Your task to perform on an android device: read, delete, or share a saved page in the chrome app Image 0: 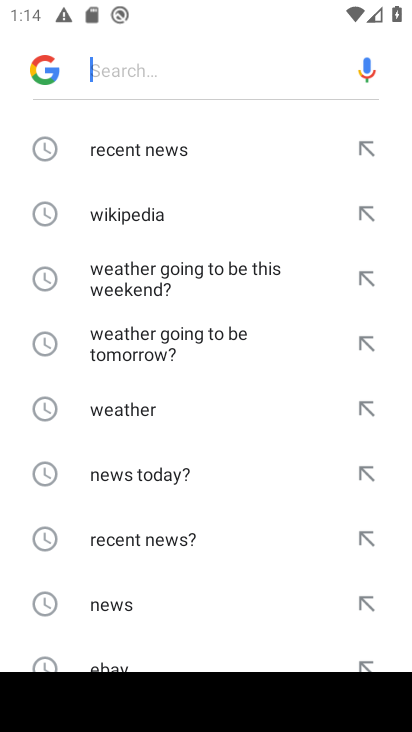
Step 0: press home button
Your task to perform on an android device: read, delete, or share a saved page in the chrome app Image 1: 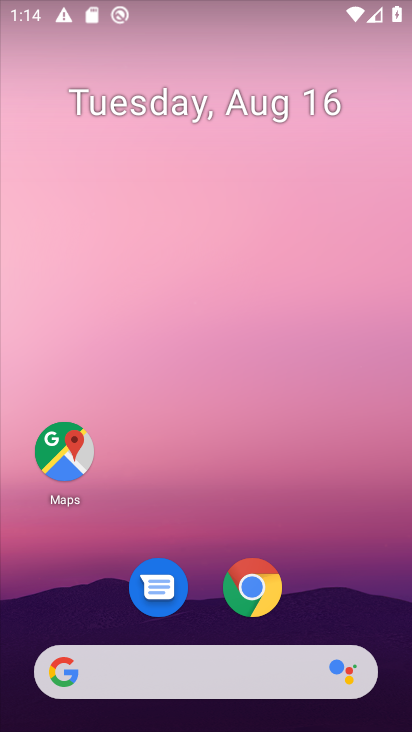
Step 1: click (245, 588)
Your task to perform on an android device: read, delete, or share a saved page in the chrome app Image 2: 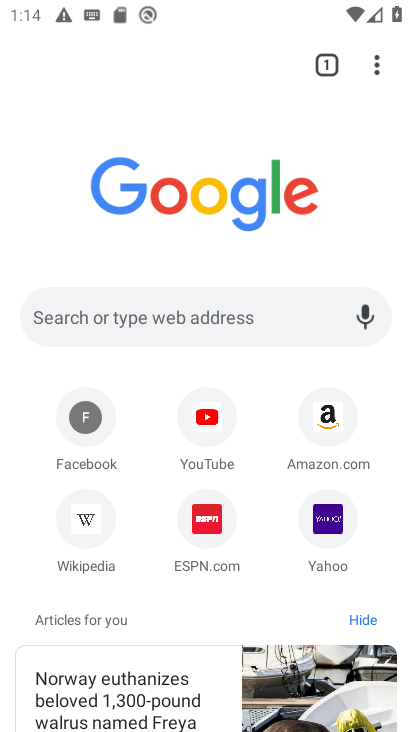
Step 2: click (378, 68)
Your task to perform on an android device: read, delete, or share a saved page in the chrome app Image 3: 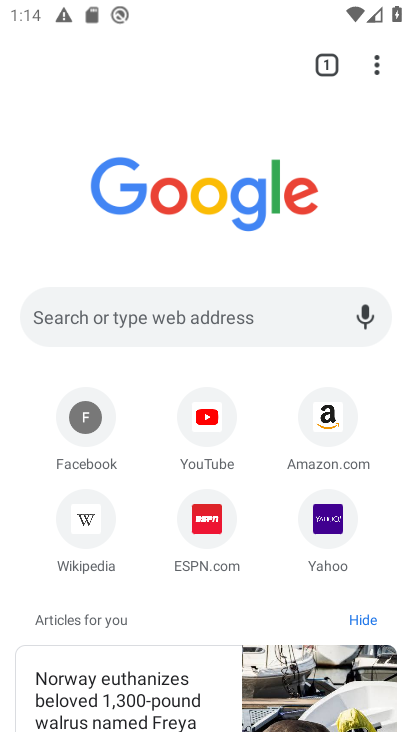
Step 3: click (378, 68)
Your task to perform on an android device: read, delete, or share a saved page in the chrome app Image 4: 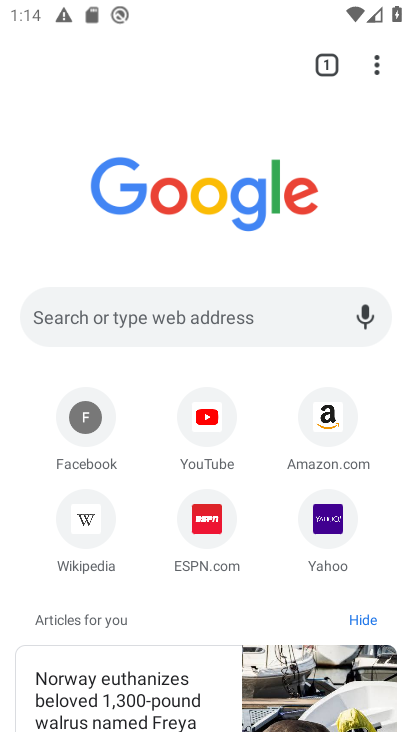
Step 4: click (378, 68)
Your task to perform on an android device: read, delete, or share a saved page in the chrome app Image 5: 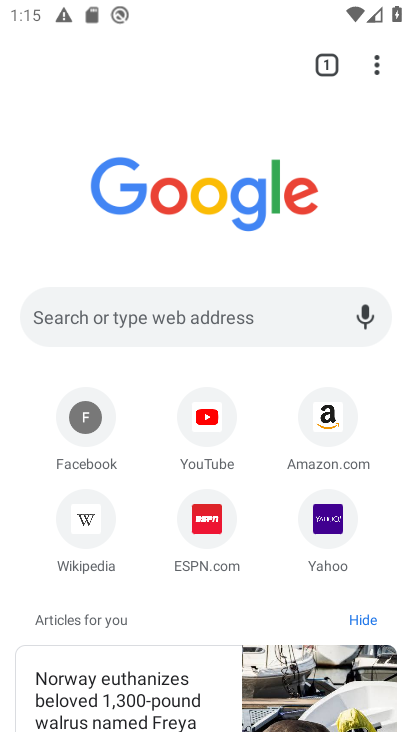
Step 5: click (375, 68)
Your task to perform on an android device: read, delete, or share a saved page in the chrome app Image 6: 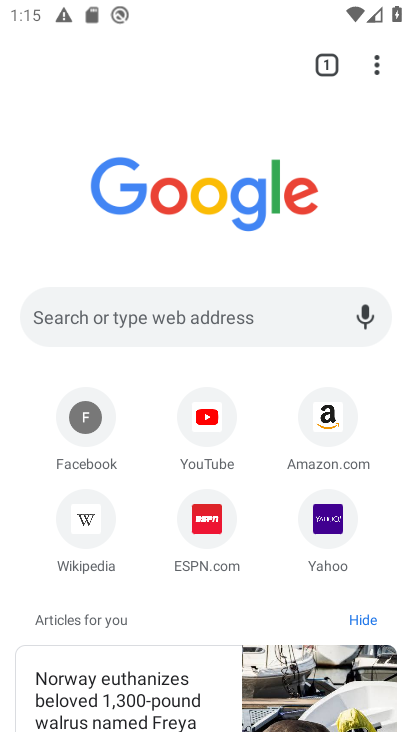
Step 6: click (380, 64)
Your task to perform on an android device: read, delete, or share a saved page in the chrome app Image 7: 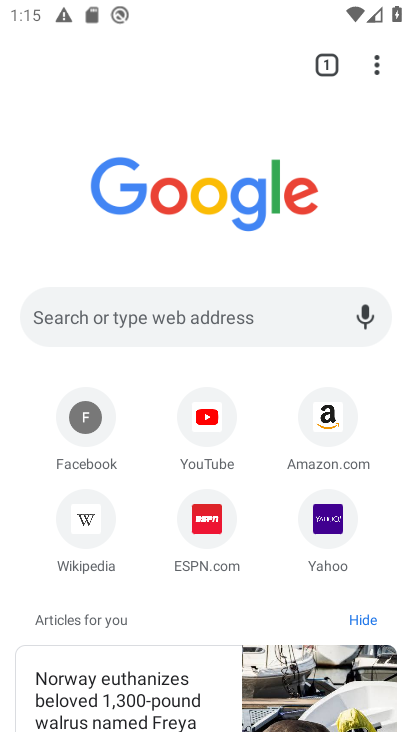
Step 7: task complete